Your task to perform on an android device: Clear the shopping cart on costco.com. Add "dell xps" to the cart on costco.com, then select checkout. Image 0: 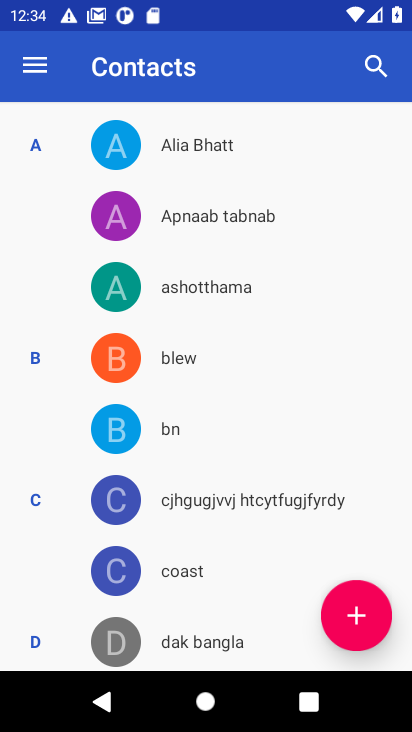
Step 0: press home button
Your task to perform on an android device: Clear the shopping cart on costco.com. Add "dell xps" to the cart on costco.com, then select checkout. Image 1: 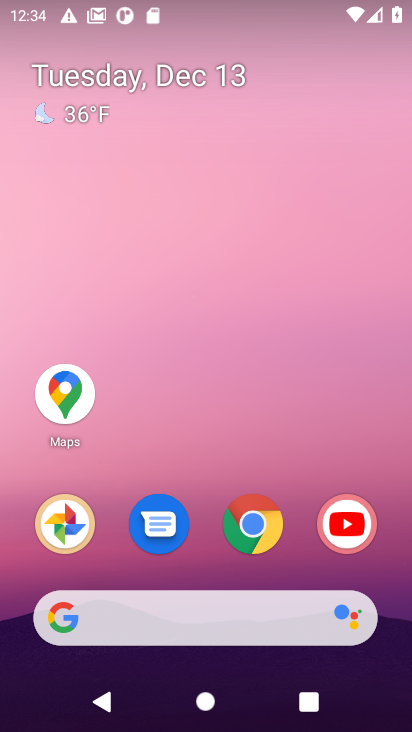
Step 1: click (255, 517)
Your task to perform on an android device: Clear the shopping cart on costco.com. Add "dell xps" to the cart on costco.com, then select checkout. Image 2: 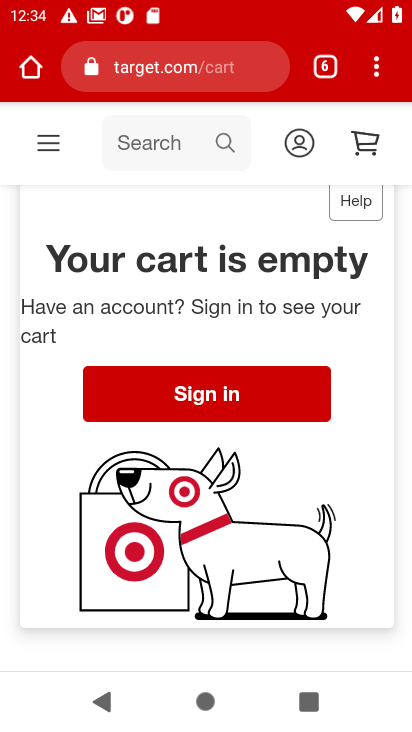
Step 2: click (149, 73)
Your task to perform on an android device: Clear the shopping cart on costco.com. Add "dell xps" to the cart on costco.com, then select checkout. Image 3: 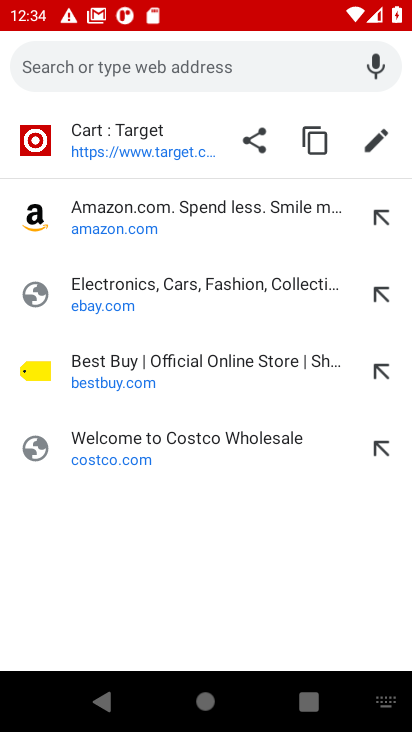
Step 3: click (99, 457)
Your task to perform on an android device: Clear the shopping cart on costco.com. Add "dell xps" to the cart on costco.com, then select checkout. Image 4: 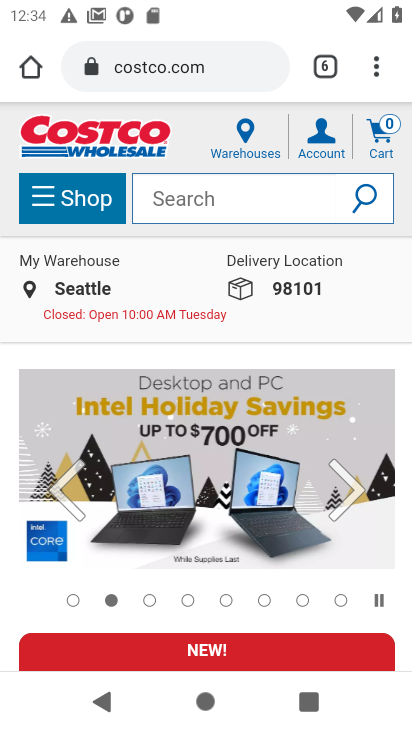
Step 4: click (379, 142)
Your task to perform on an android device: Clear the shopping cart on costco.com. Add "dell xps" to the cart on costco.com, then select checkout. Image 5: 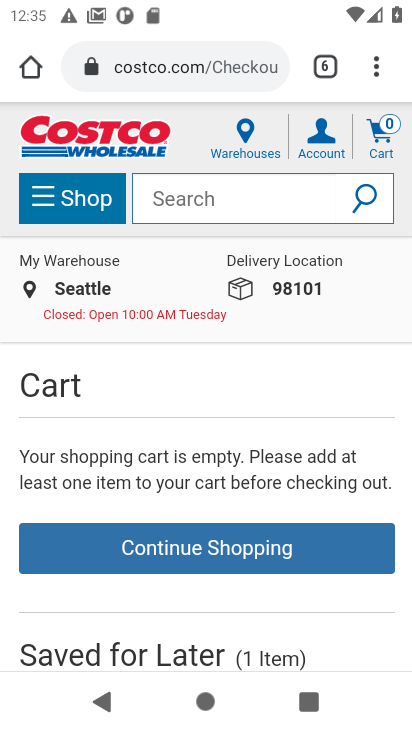
Step 5: click (187, 201)
Your task to perform on an android device: Clear the shopping cart on costco.com. Add "dell xps" to the cart on costco.com, then select checkout. Image 6: 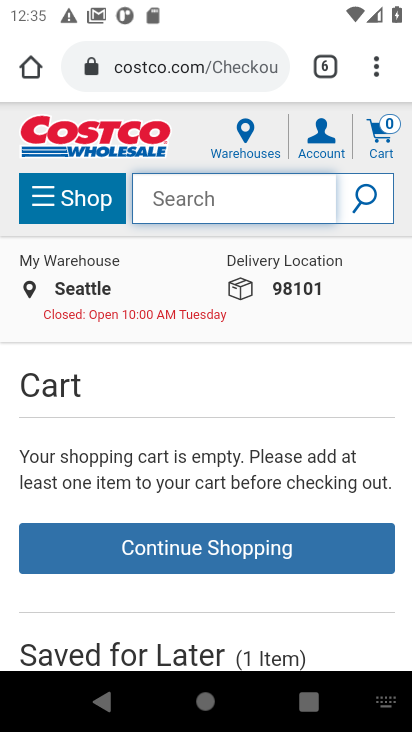
Step 6: type "dell xps"
Your task to perform on an android device: Clear the shopping cart on costco.com. Add "dell xps" to the cart on costco.com, then select checkout. Image 7: 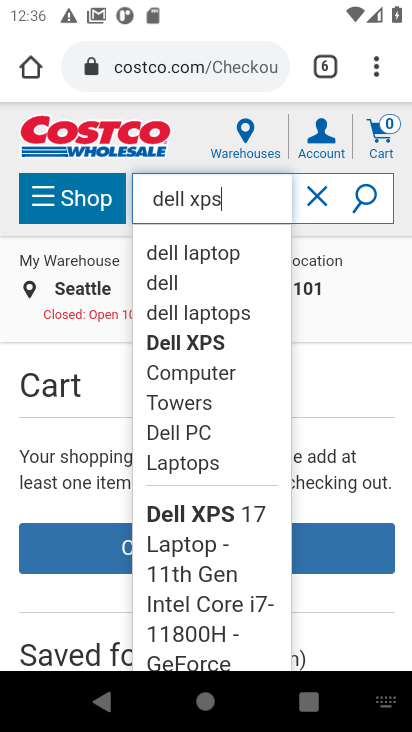
Step 7: click (361, 197)
Your task to perform on an android device: Clear the shopping cart on costco.com. Add "dell xps" to the cart on costco.com, then select checkout. Image 8: 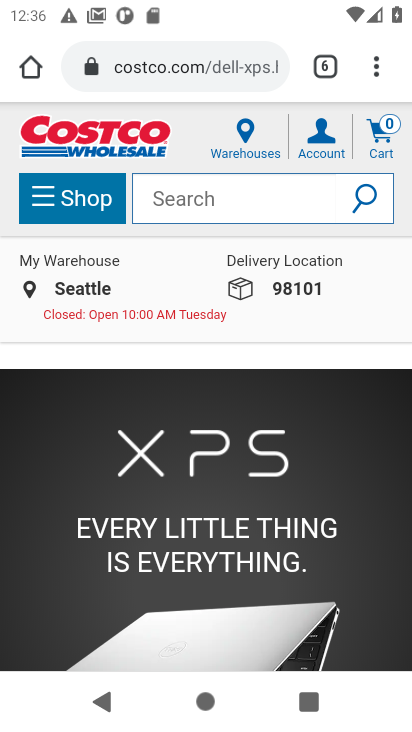
Step 8: task complete